Your task to perform on an android device: Open Youtube and go to the subscriptions tab Image 0: 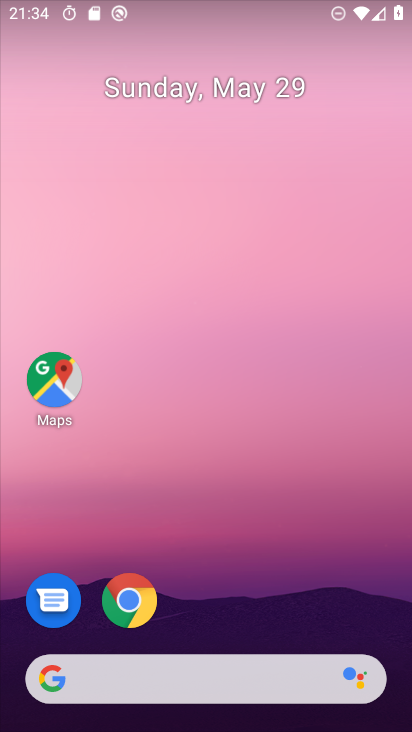
Step 0: drag from (295, 595) to (291, 109)
Your task to perform on an android device: Open Youtube and go to the subscriptions tab Image 1: 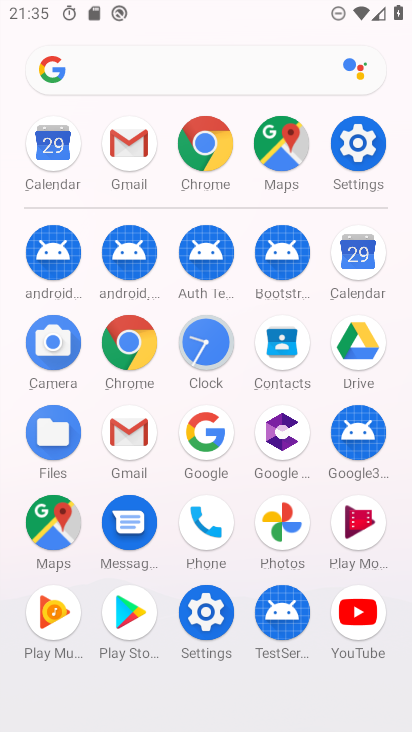
Step 1: click (363, 621)
Your task to perform on an android device: Open Youtube and go to the subscriptions tab Image 2: 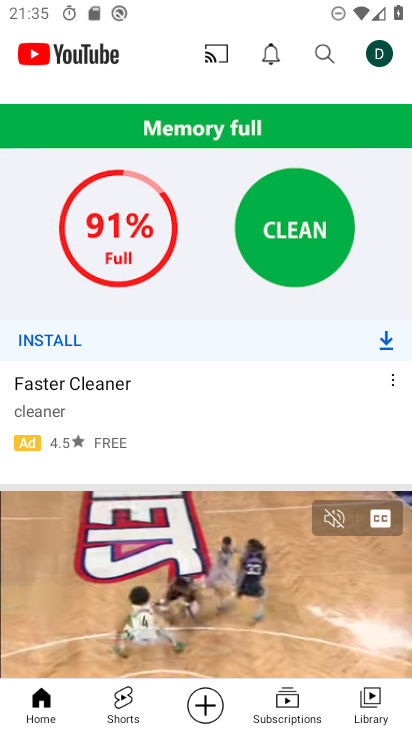
Step 2: click (290, 691)
Your task to perform on an android device: Open Youtube and go to the subscriptions tab Image 3: 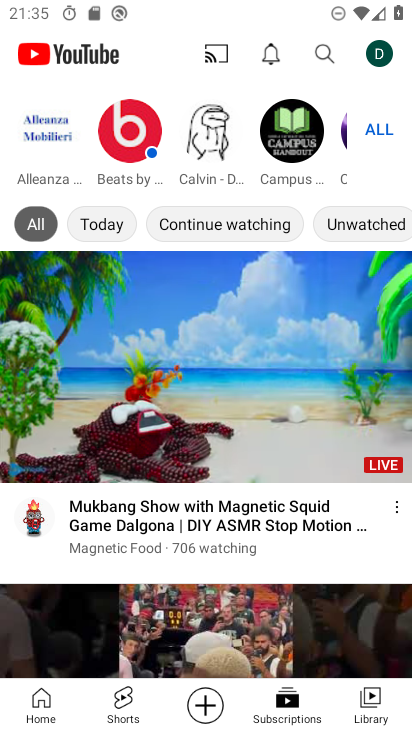
Step 3: task complete